Your task to perform on an android device: Go to display settings Image 0: 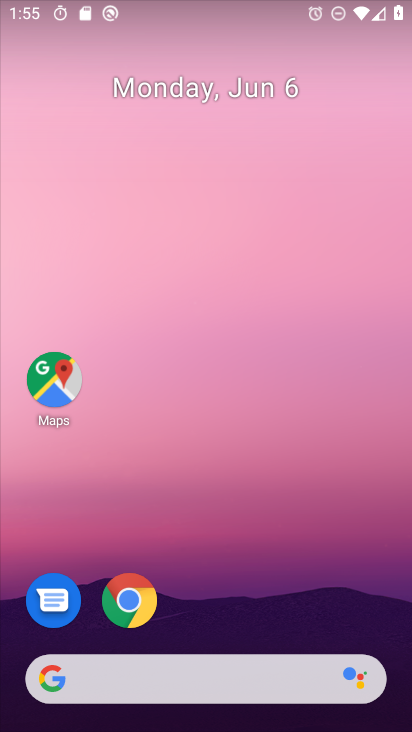
Step 0: drag from (202, 617) to (209, 176)
Your task to perform on an android device: Go to display settings Image 1: 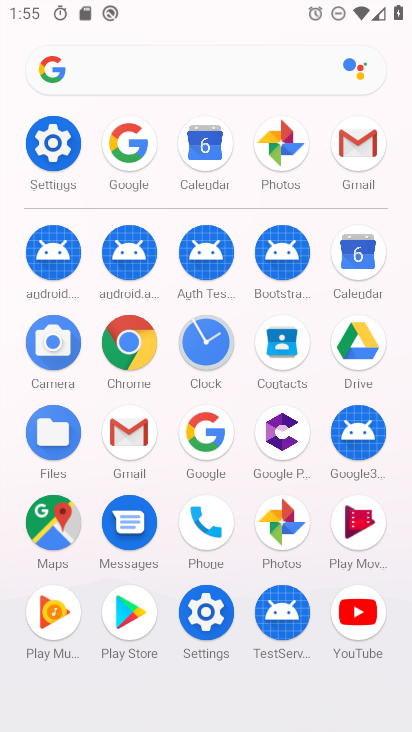
Step 1: click (80, 158)
Your task to perform on an android device: Go to display settings Image 2: 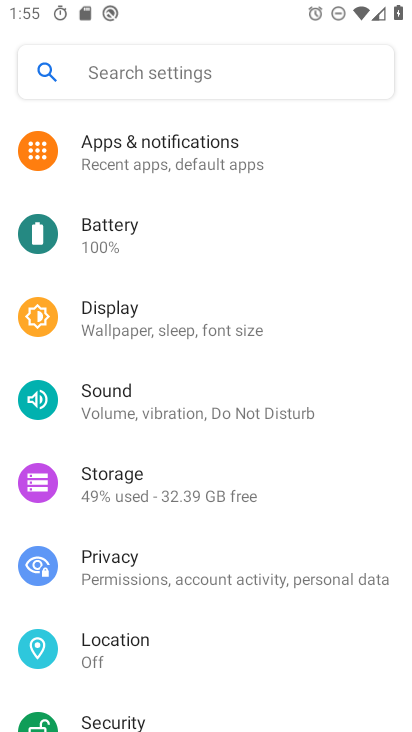
Step 2: click (203, 339)
Your task to perform on an android device: Go to display settings Image 3: 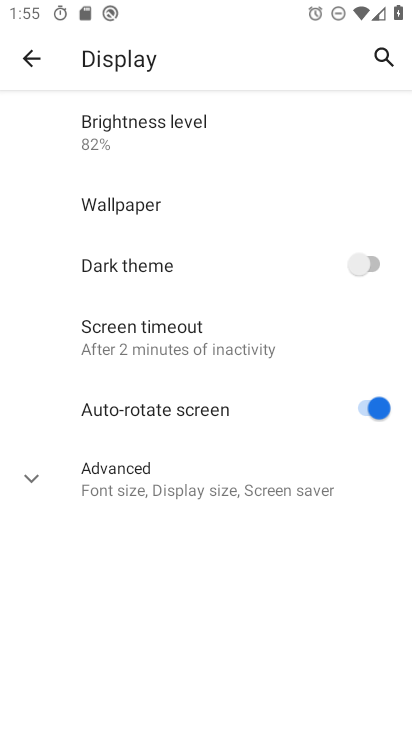
Step 3: task complete